Your task to perform on an android device: Go to ESPN.com Image 0: 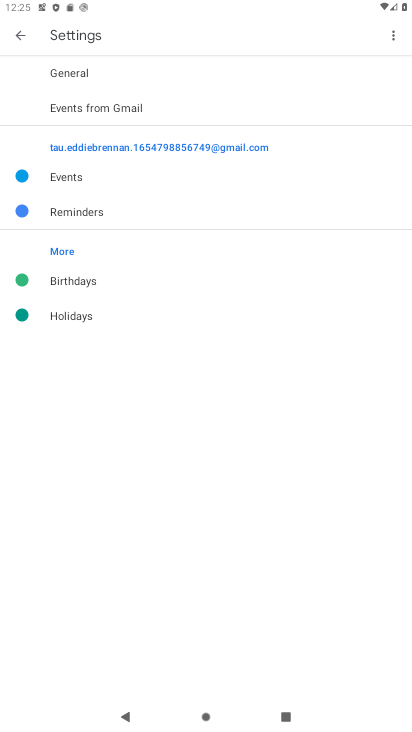
Step 0: press home button
Your task to perform on an android device: Go to ESPN.com Image 1: 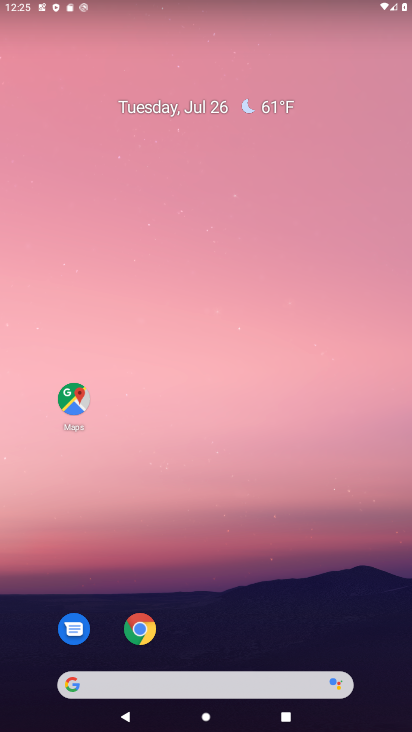
Step 1: click (136, 626)
Your task to perform on an android device: Go to ESPN.com Image 2: 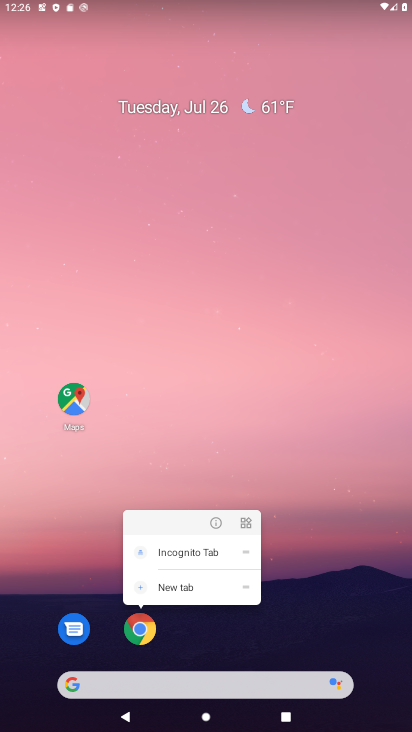
Step 2: click (134, 620)
Your task to perform on an android device: Go to ESPN.com Image 3: 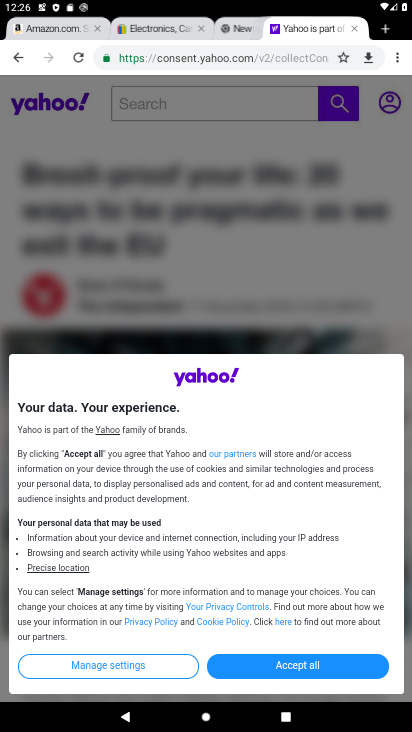
Step 3: click (383, 28)
Your task to perform on an android device: Go to ESPN.com Image 4: 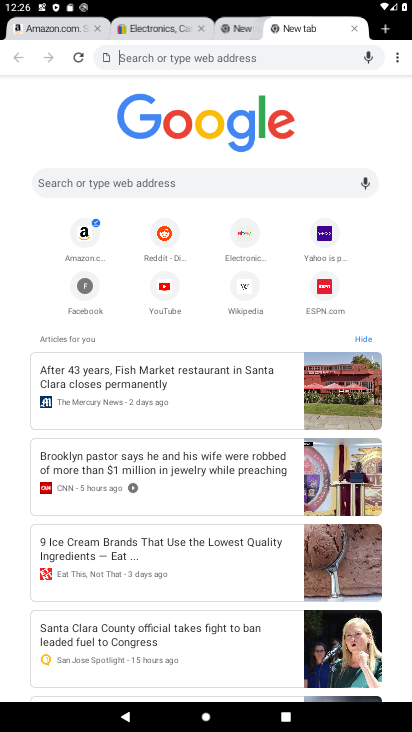
Step 4: click (311, 294)
Your task to perform on an android device: Go to ESPN.com Image 5: 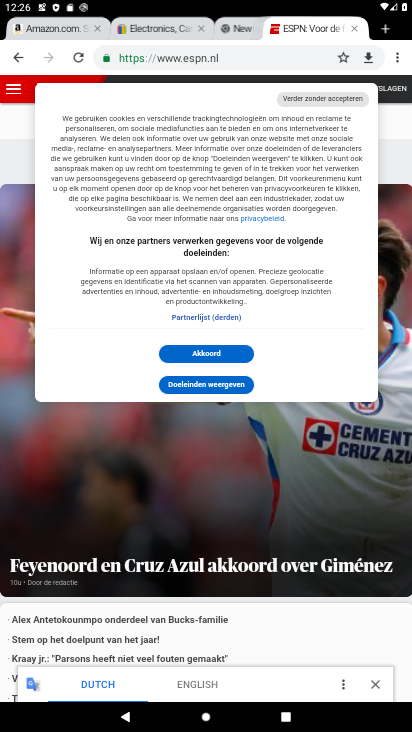
Step 5: task complete